Your task to perform on an android device: toggle notifications settings in the gmail app Image 0: 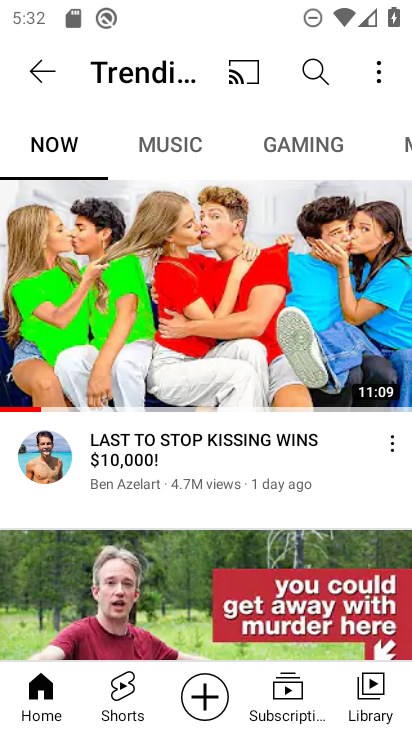
Step 0: press back button
Your task to perform on an android device: toggle notifications settings in the gmail app Image 1: 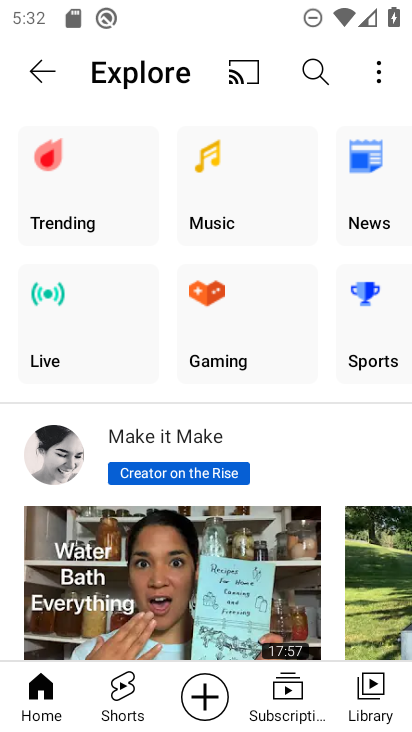
Step 1: press home button
Your task to perform on an android device: toggle notifications settings in the gmail app Image 2: 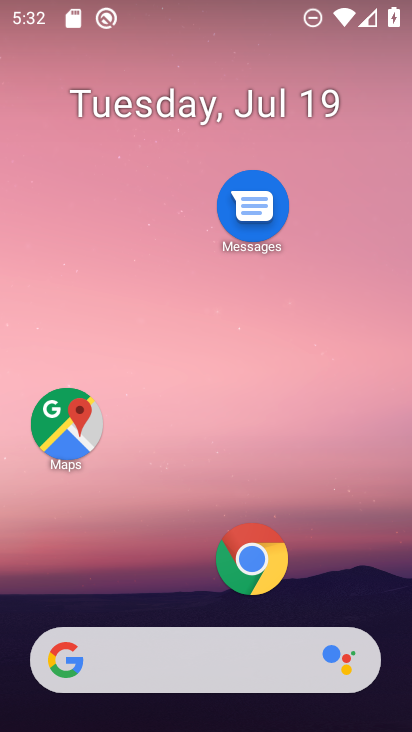
Step 2: drag from (142, 563) to (223, 13)
Your task to perform on an android device: toggle notifications settings in the gmail app Image 3: 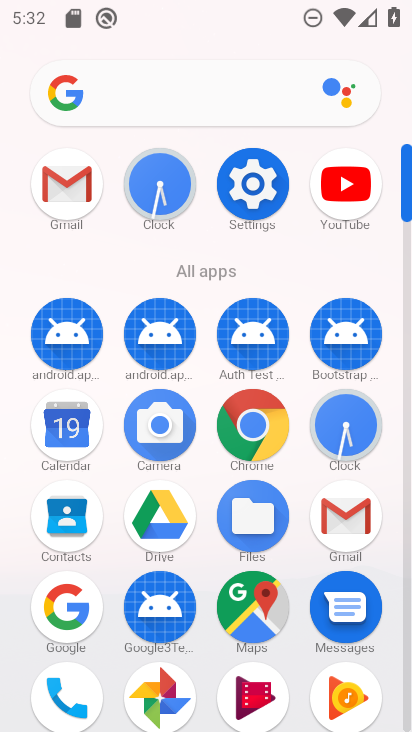
Step 3: click (69, 187)
Your task to perform on an android device: toggle notifications settings in the gmail app Image 4: 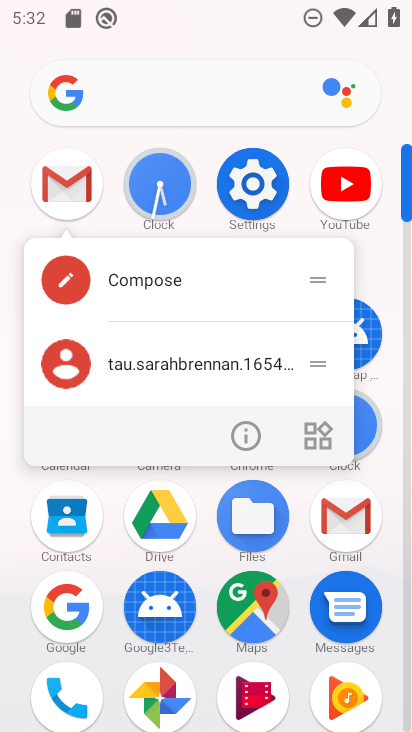
Step 4: click (236, 446)
Your task to perform on an android device: toggle notifications settings in the gmail app Image 5: 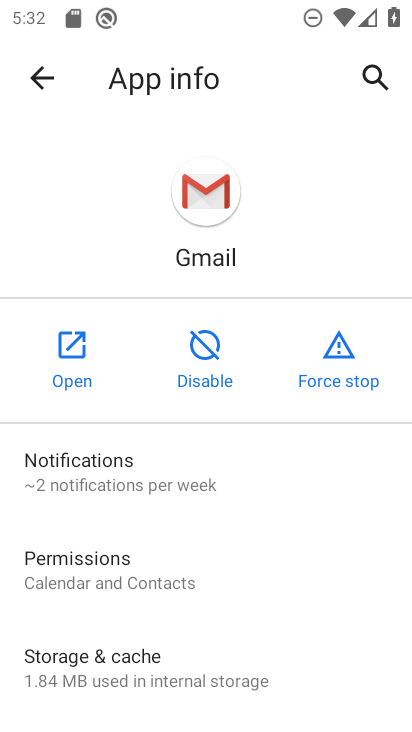
Step 5: click (106, 462)
Your task to perform on an android device: toggle notifications settings in the gmail app Image 6: 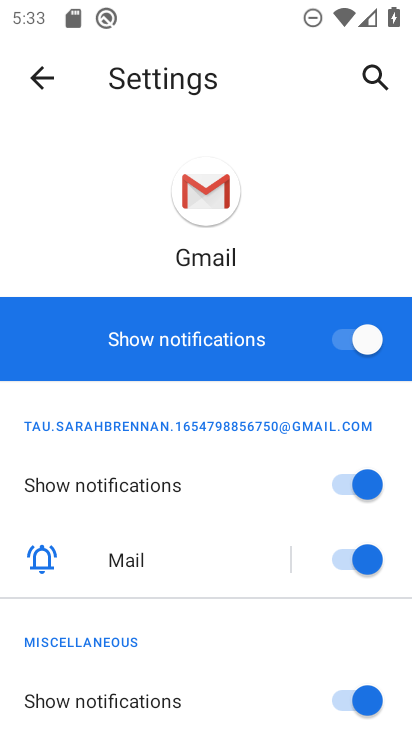
Step 6: task complete